Your task to perform on an android device: toggle priority inbox in the gmail app Image 0: 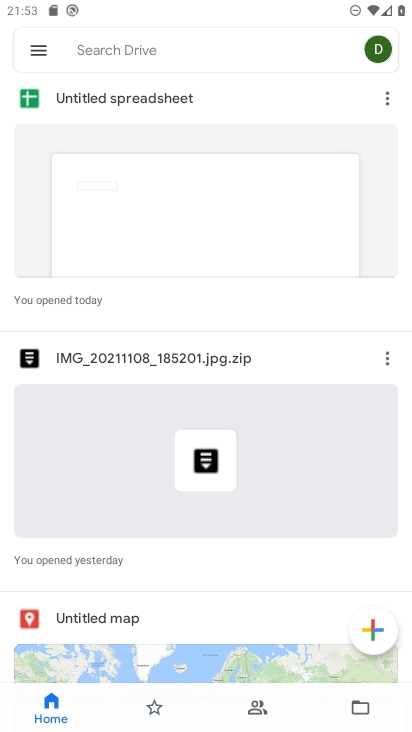
Step 0: press home button
Your task to perform on an android device: toggle priority inbox in the gmail app Image 1: 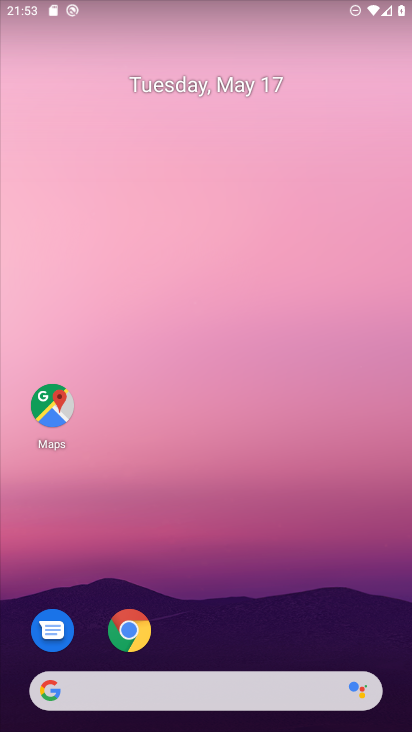
Step 1: drag from (344, 606) to (344, 176)
Your task to perform on an android device: toggle priority inbox in the gmail app Image 2: 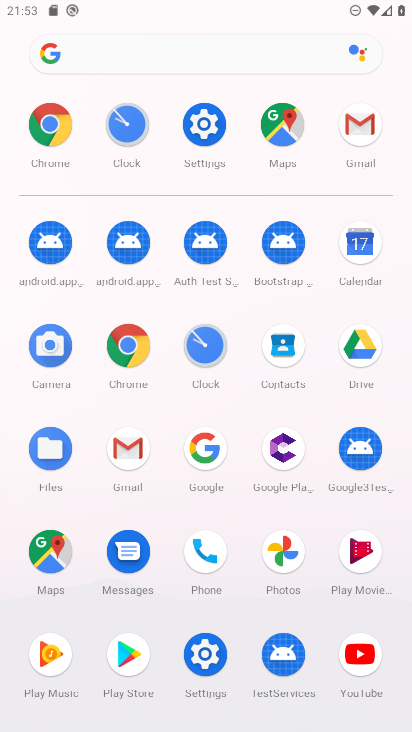
Step 2: click (130, 472)
Your task to perform on an android device: toggle priority inbox in the gmail app Image 3: 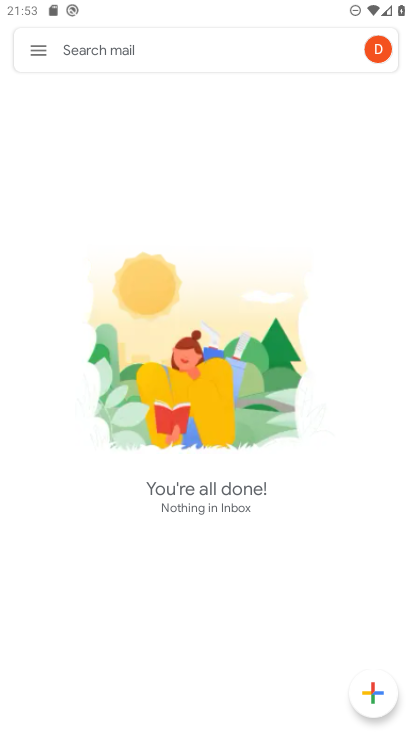
Step 3: click (34, 54)
Your task to perform on an android device: toggle priority inbox in the gmail app Image 4: 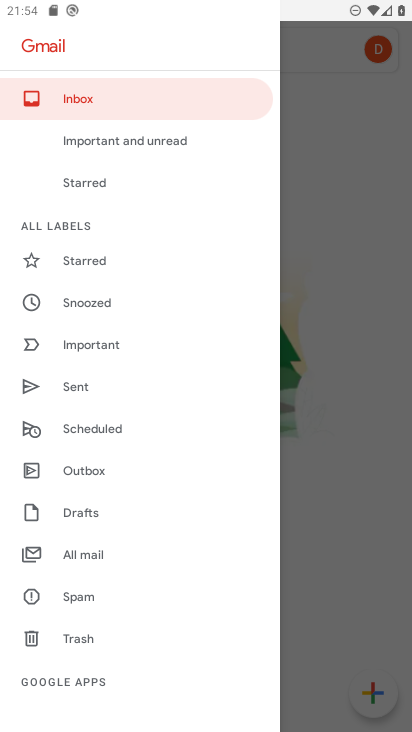
Step 4: drag from (172, 541) to (182, 443)
Your task to perform on an android device: toggle priority inbox in the gmail app Image 5: 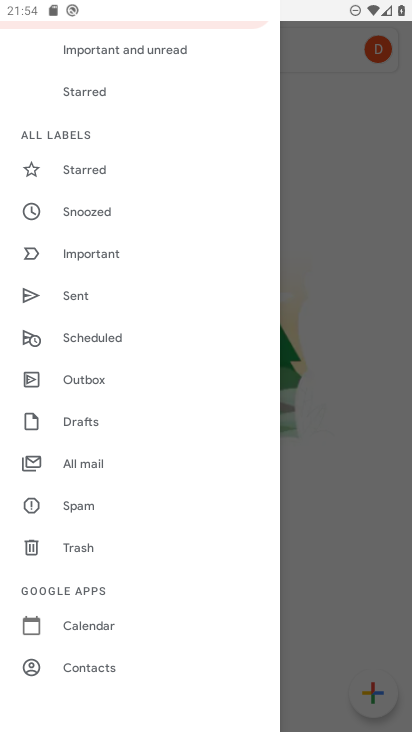
Step 5: drag from (182, 576) to (201, 438)
Your task to perform on an android device: toggle priority inbox in the gmail app Image 6: 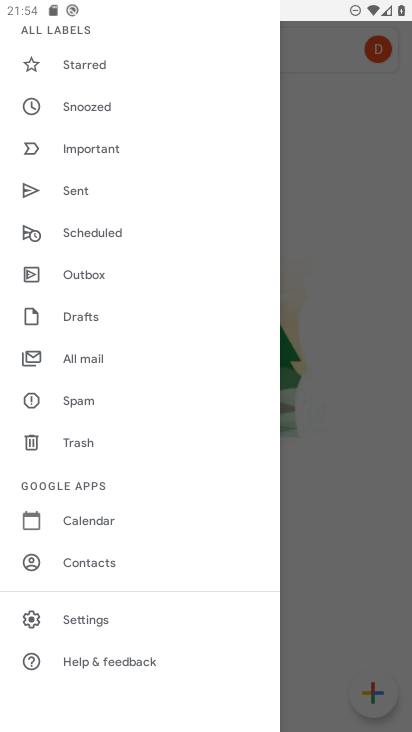
Step 6: drag from (185, 599) to (202, 420)
Your task to perform on an android device: toggle priority inbox in the gmail app Image 7: 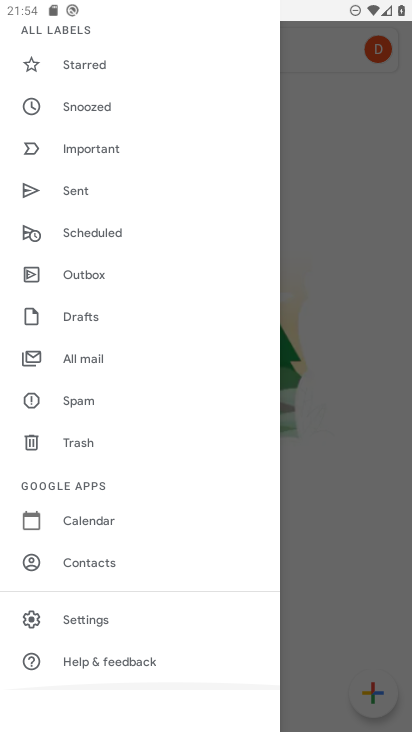
Step 7: drag from (205, 314) to (192, 461)
Your task to perform on an android device: toggle priority inbox in the gmail app Image 8: 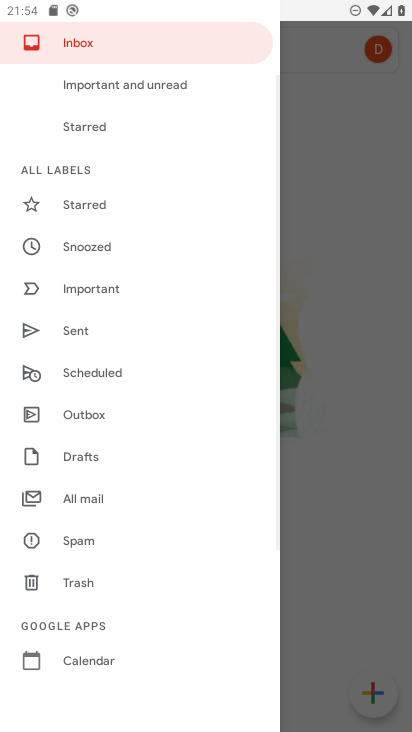
Step 8: drag from (184, 550) to (190, 393)
Your task to perform on an android device: toggle priority inbox in the gmail app Image 9: 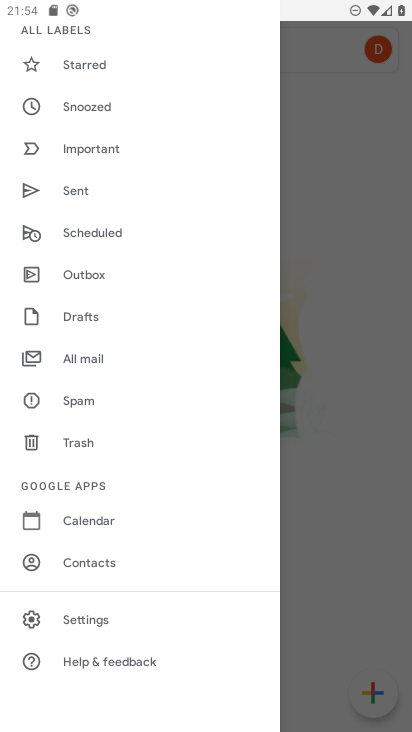
Step 9: click (104, 620)
Your task to perform on an android device: toggle priority inbox in the gmail app Image 10: 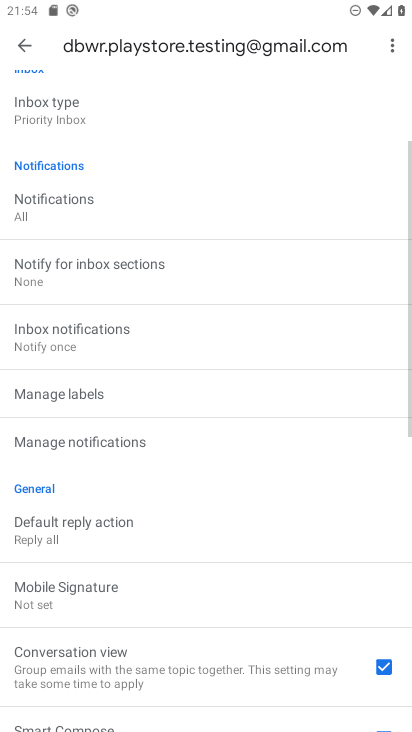
Step 10: drag from (264, 563) to (272, 410)
Your task to perform on an android device: toggle priority inbox in the gmail app Image 11: 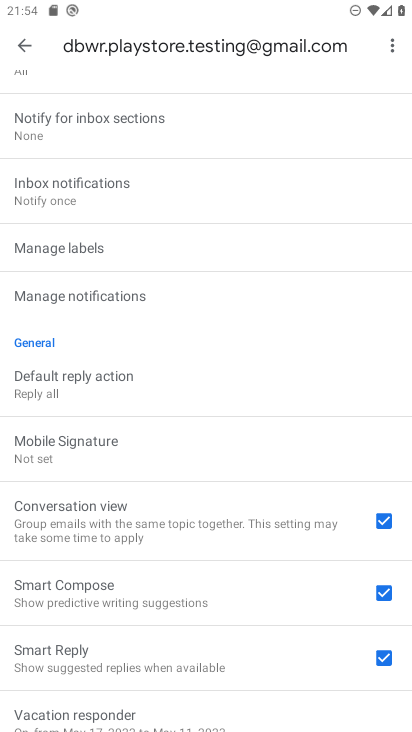
Step 11: drag from (271, 584) to (272, 420)
Your task to perform on an android device: toggle priority inbox in the gmail app Image 12: 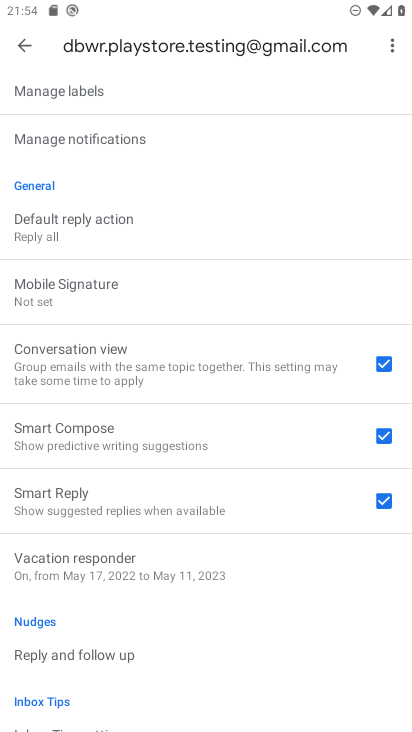
Step 12: drag from (278, 614) to (287, 466)
Your task to perform on an android device: toggle priority inbox in the gmail app Image 13: 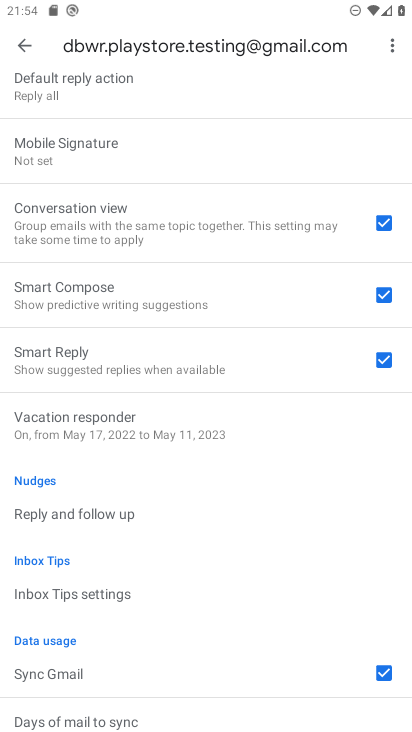
Step 13: drag from (290, 615) to (288, 457)
Your task to perform on an android device: toggle priority inbox in the gmail app Image 14: 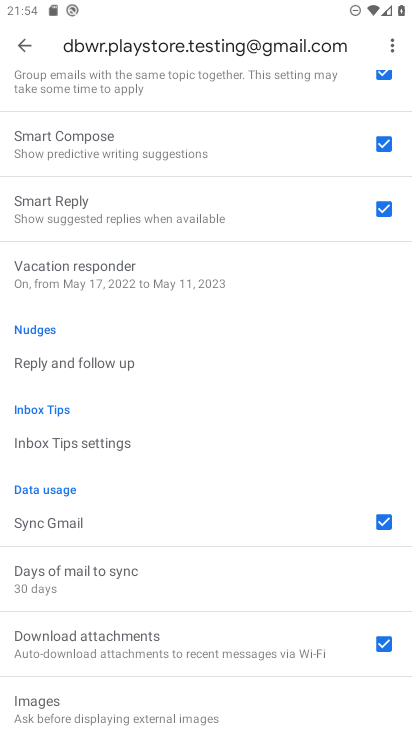
Step 14: drag from (288, 570) to (289, 438)
Your task to perform on an android device: toggle priority inbox in the gmail app Image 15: 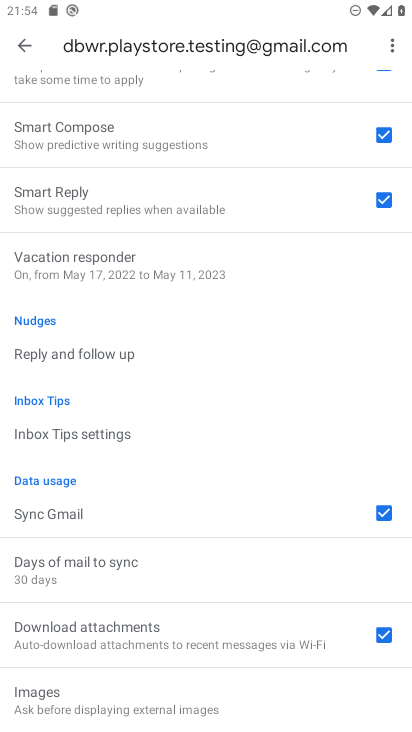
Step 15: drag from (281, 263) to (255, 441)
Your task to perform on an android device: toggle priority inbox in the gmail app Image 16: 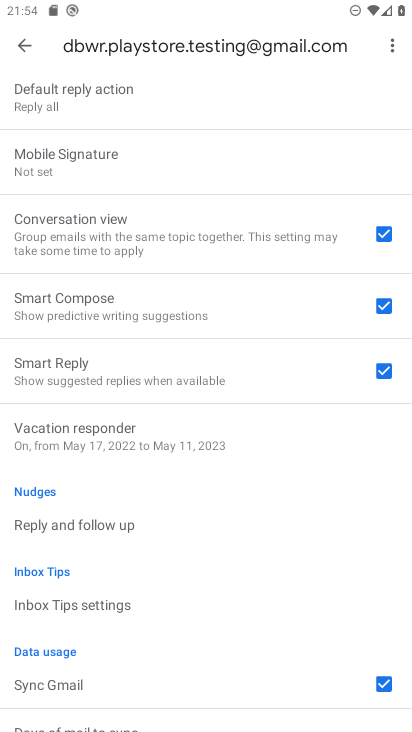
Step 16: drag from (240, 214) to (223, 429)
Your task to perform on an android device: toggle priority inbox in the gmail app Image 17: 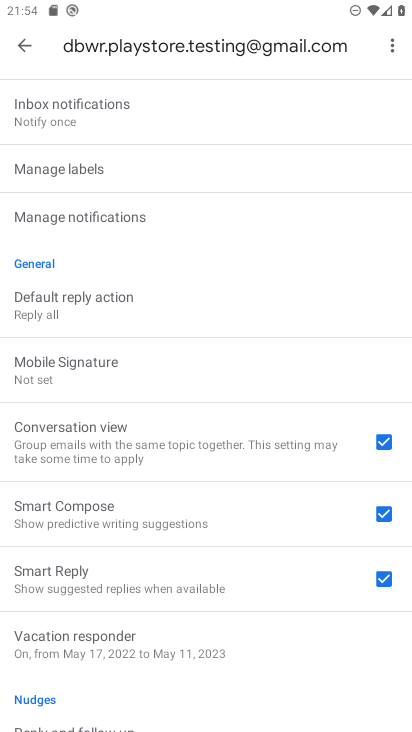
Step 17: drag from (258, 234) to (234, 412)
Your task to perform on an android device: toggle priority inbox in the gmail app Image 18: 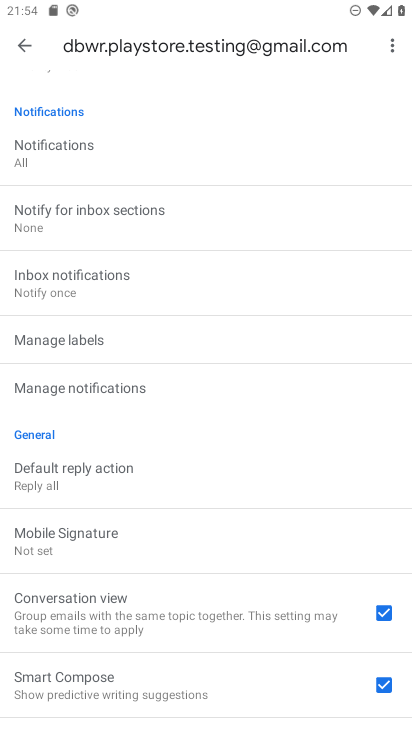
Step 18: drag from (236, 178) to (236, 355)
Your task to perform on an android device: toggle priority inbox in the gmail app Image 19: 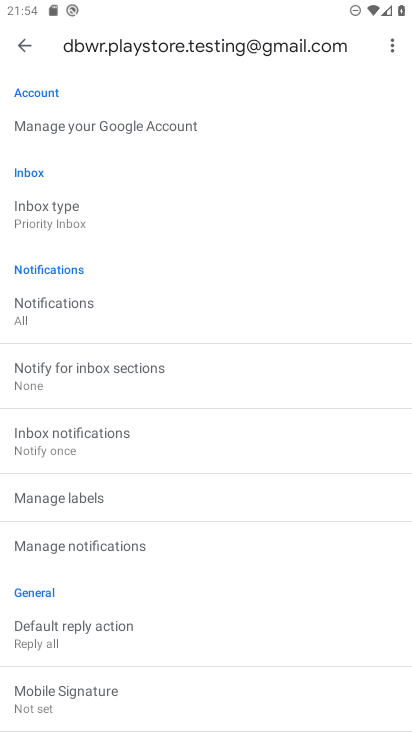
Step 19: click (49, 221)
Your task to perform on an android device: toggle priority inbox in the gmail app Image 20: 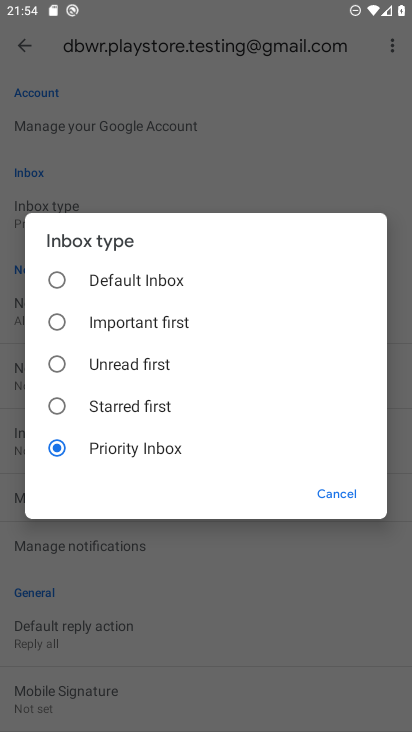
Step 20: task complete